Your task to perform on an android device: Show me recent news Image 0: 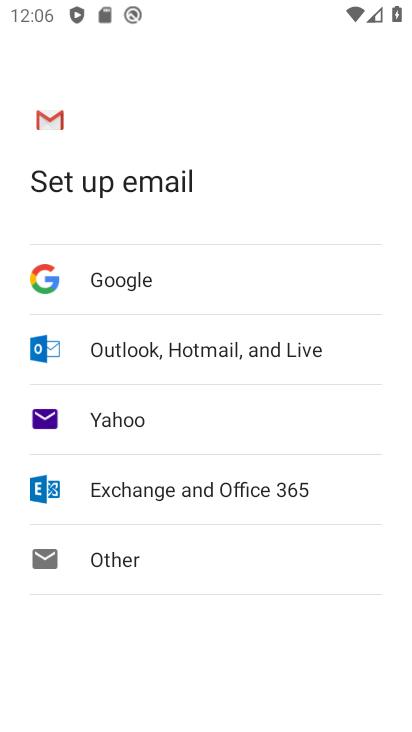
Step 0: press home button
Your task to perform on an android device: Show me recent news Image 1: 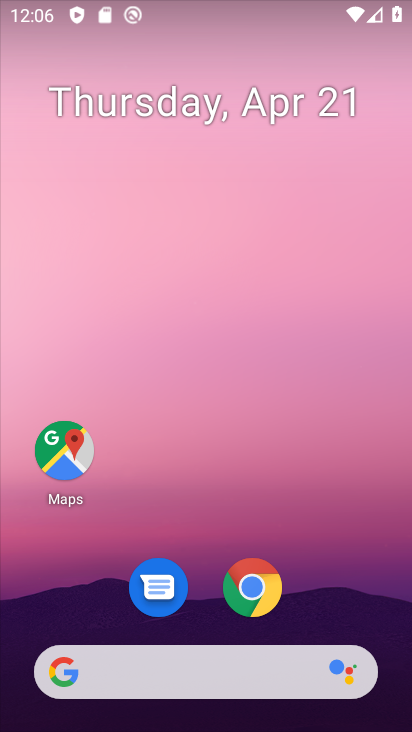
Step 1: click (212, 664)
Your task to perform on an android device: Show me recent news Image 2: 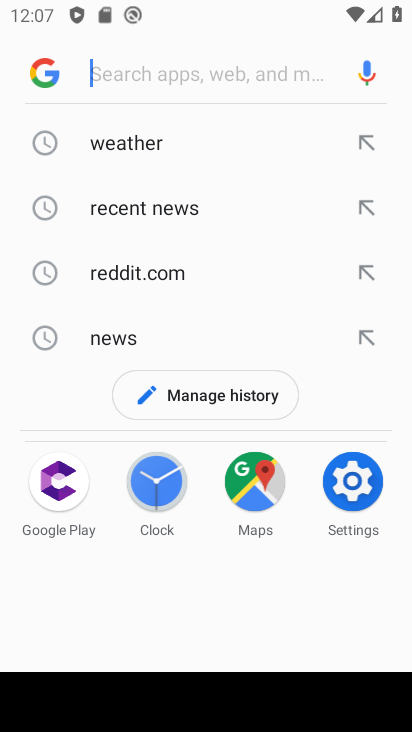
Step 2: click (154, 204)
Your task to perform on an android device: Show me recent news Image 3: 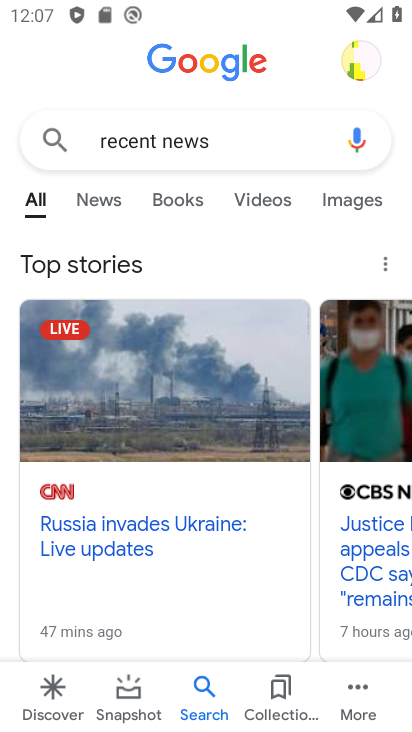
Step 3: drag from (241, 618) to (237, 398)
Your task to perform on an android device: Show me recent news Image 4: 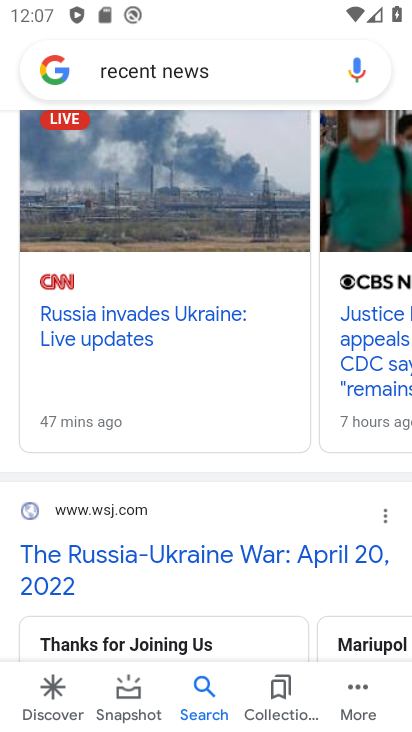
Step 4: drag from (263, 419) to (237, 662)
Your task to perform on an android device: Show me recent news Image 5: 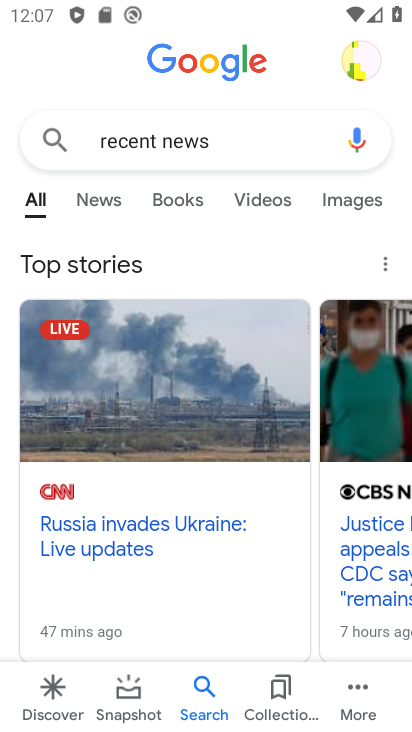
Step 5: click (98, 198)
Your task to perform on an android device: Show me recent news Image 6: 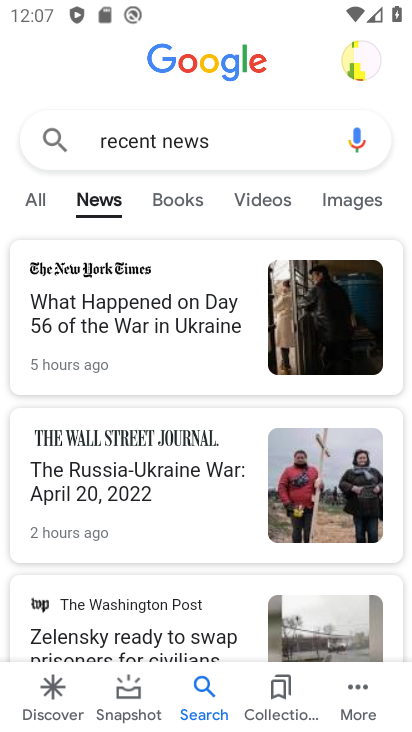
Step 6: task complete